Your task to perform on an android device: Open calendar and show me the fourth week of next month Image 0: 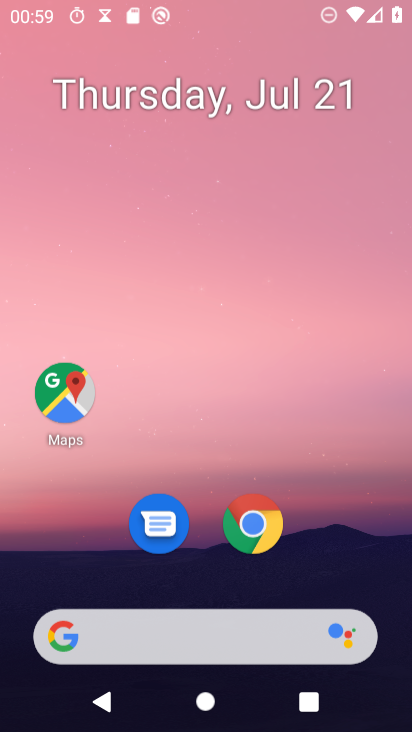
Step 0: press home button
Your task to perform on an android device: Open calendar and show me the fourth week of next month Image 1: 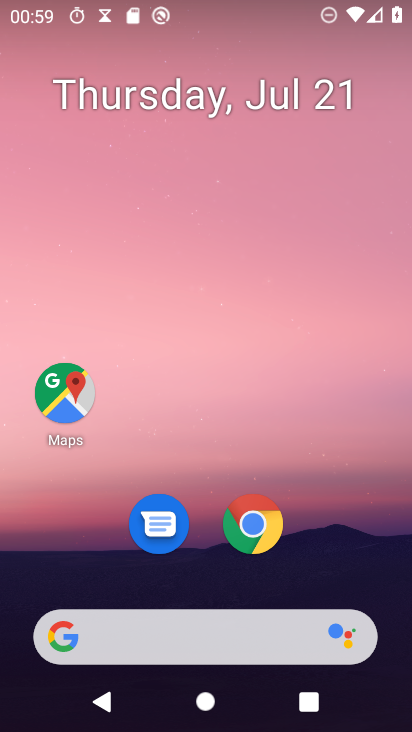
Step 1: drag from (240, 594) to (343, 28)
Your task to perform on an android device: Open calendar and show me the fourth week of next month Image 2: 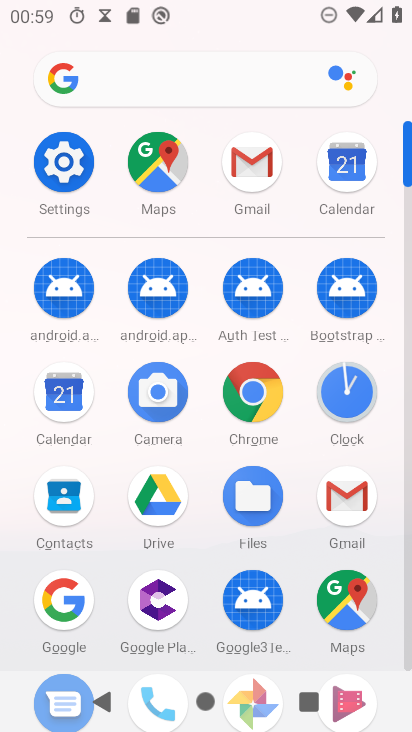
Step 2: click (66, 411)
Your task to perform on an android device: Open calendar and show me the fourth week of next month Image 3: 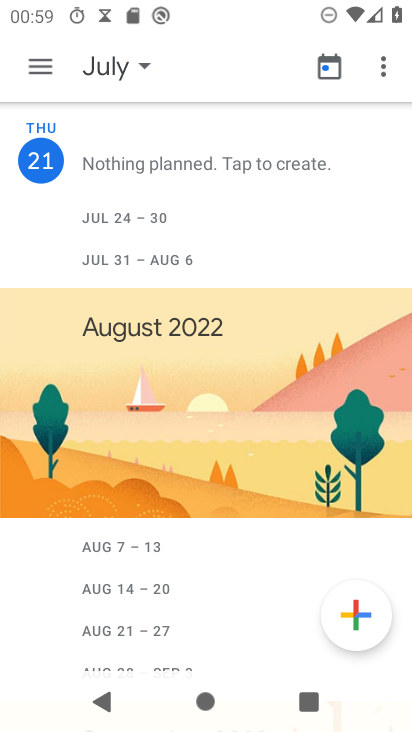
Step 3: click (108, 69)
Your task to perform on an android device: Open calendar and show me the fourth week of next month Image 4: 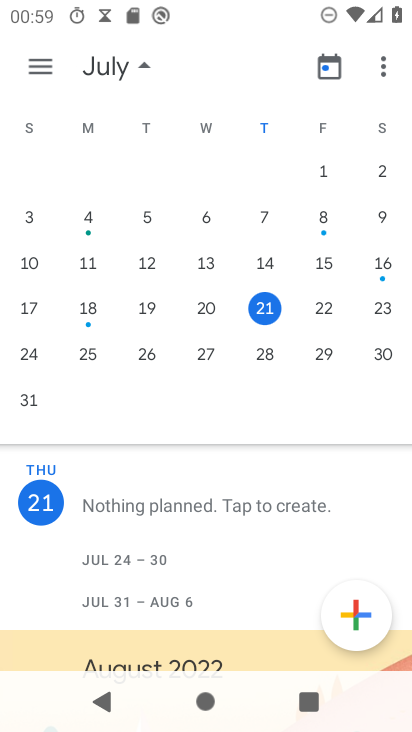
Step 4: drag from (370, 281) to (42, 338)
Your task to perform on an android device: Open calendar and show me the fourth week of next month Image 5: 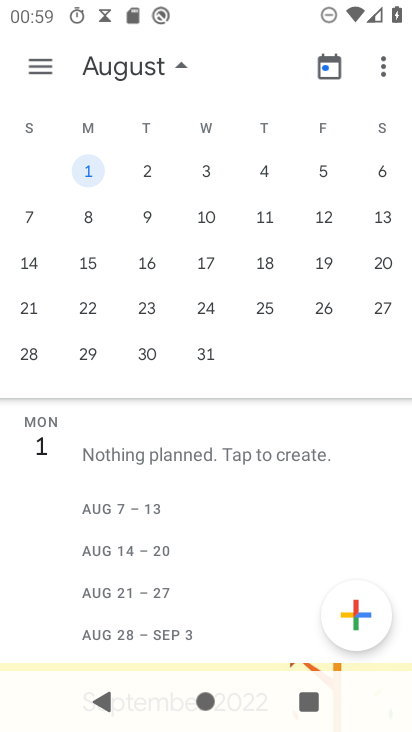
Step 5: click (24, 313)
Your task to perform on an android device: Open calendar and show me the fourth week of next month Image 6: 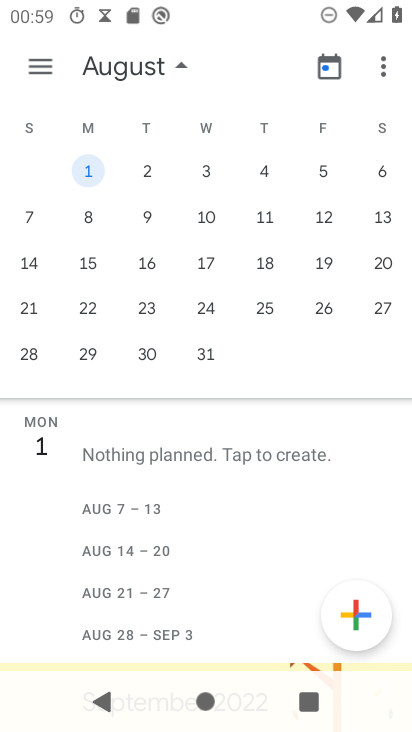
Step 6: click (27, 311)
Your task to perform on an android device: Open calendar and show me the fourth week of next month Image 7: 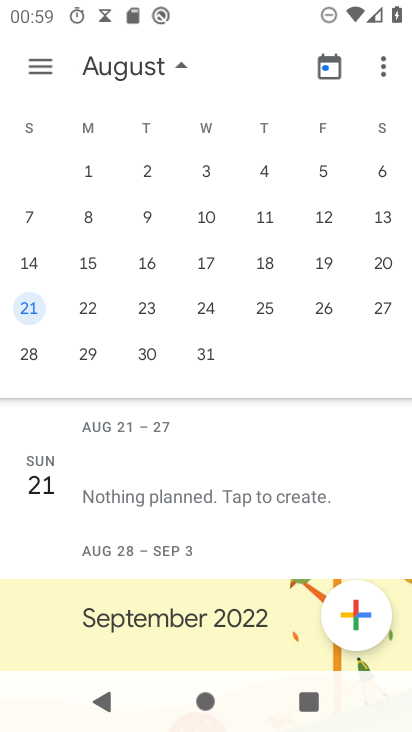
Step 7: click (42, 70)
Your task to perform on an android device: Open calendar and show me the fourth week of next month Image 8: 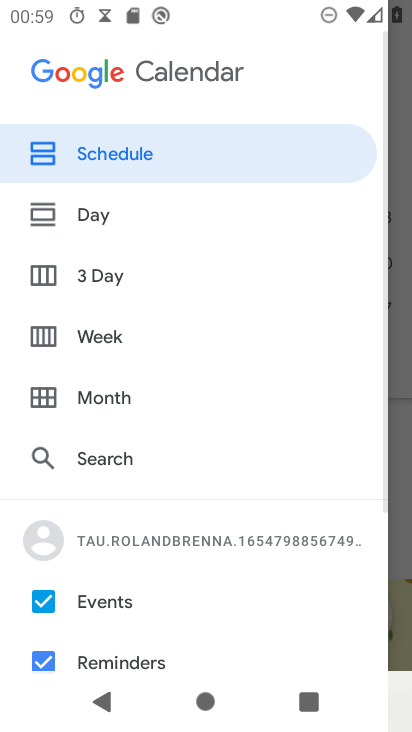
Step 8: click (109, 332)
Your task to perform on an android device: Open calendar and show me the fourth week of next month Image 9: 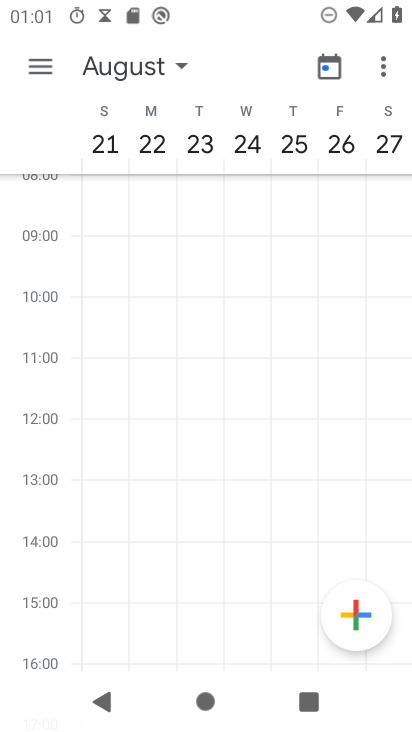
Step 9: task complete